Your task to perform on an android device: toggle data saver in the chrome app Image 0: 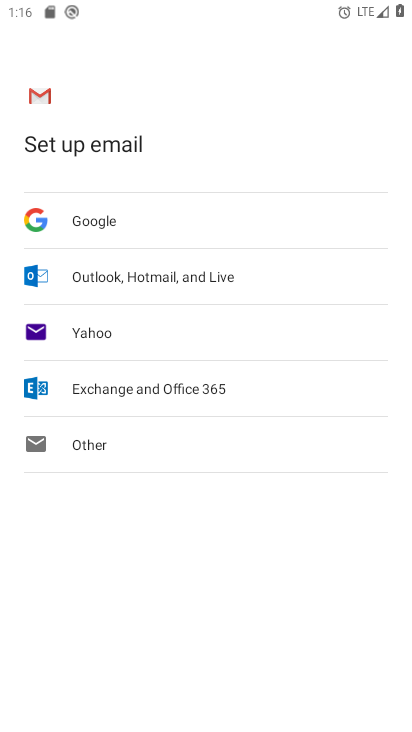
Step 0: press home button
Your task to perform on an android device: toggle data saver in the chrome app Image 1: 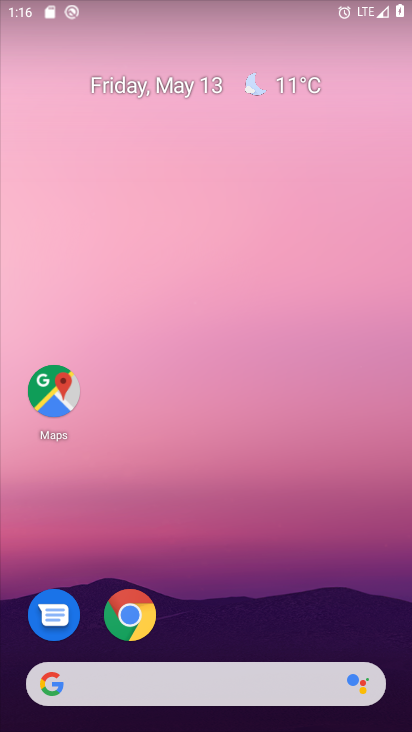
Step 1: click (134, 605)
Your task to perform on an android device: toggle data saver in the chrome app Image 2: 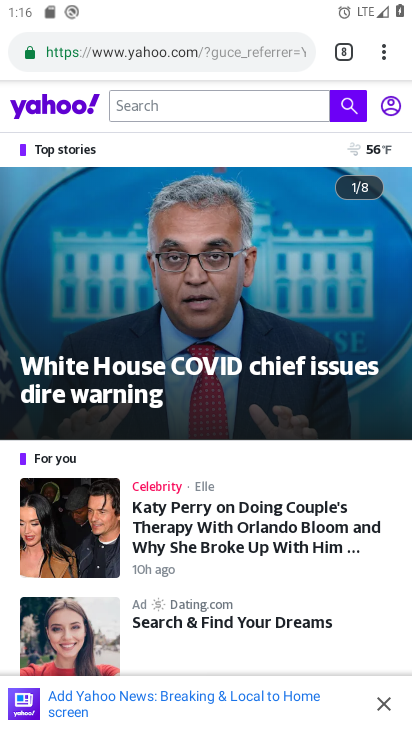
Step 2: click (381, 52)
Your task to perform on an android device: toggle data saver in the chrome app Image 3: 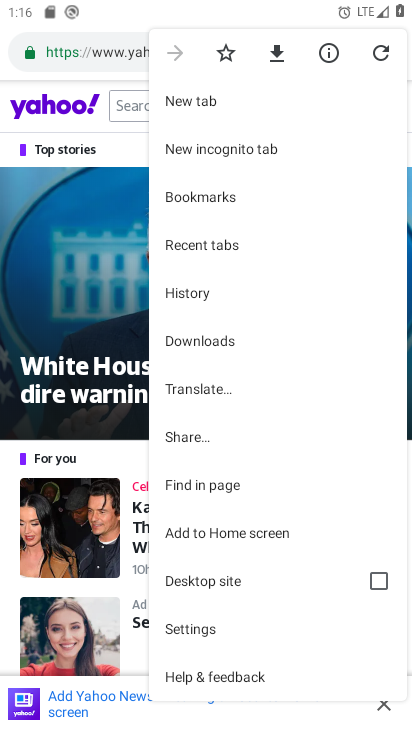
Step 3: click (237, 625)
Your task to perform on an android device: toggle data saver in the chrome app Image 4: 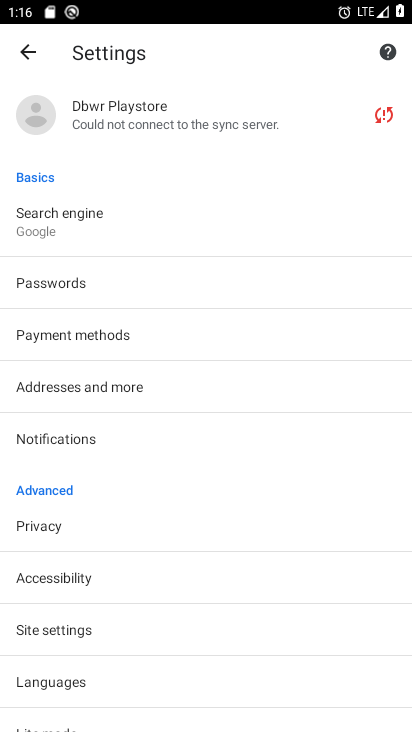
Step 4: drag from (237, 624) to (203, 447)
Your task to perform on an android device: toggle data saver in the chrome app Image 5: 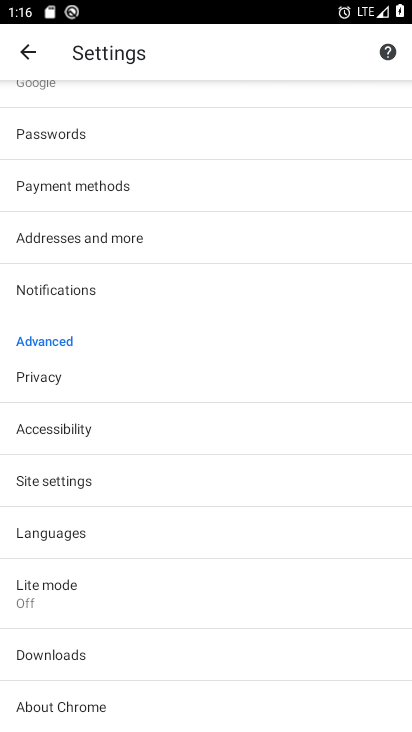
Step 5: click (121, 593)
Your task to perform on an android device: toggle data saver in the chrome app Image 6: 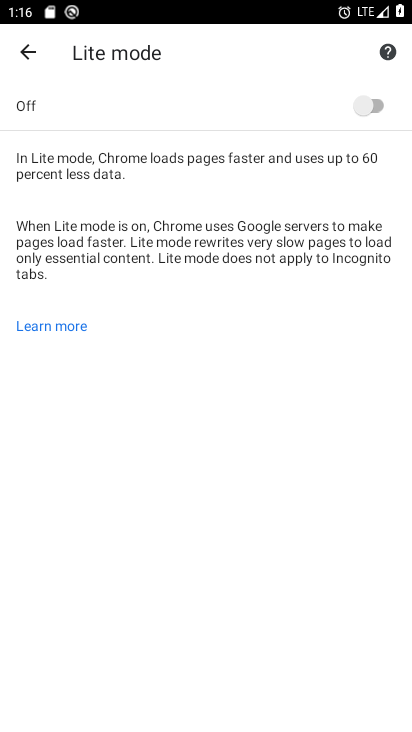
Step 6: click (384, 94)
Your task to perform on an android device: toggle data saver in the chrome app Image 7: 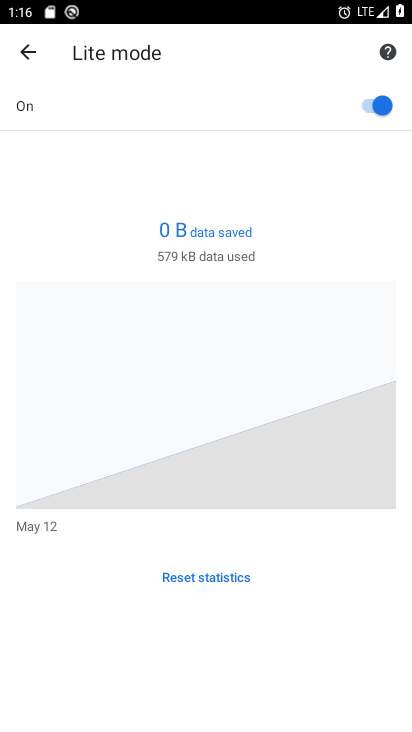
Step 7: task complete